Your task to perform on an android device: toggle location history Image 0: 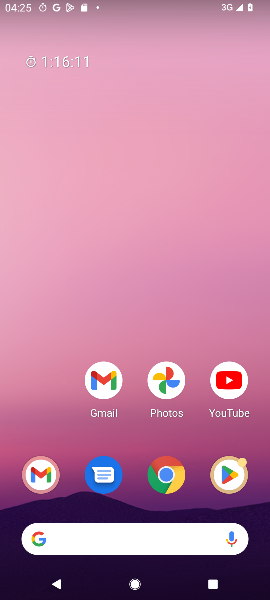
Step 0: press home button
Your task to perform on an android device: toggle location history Image 1: 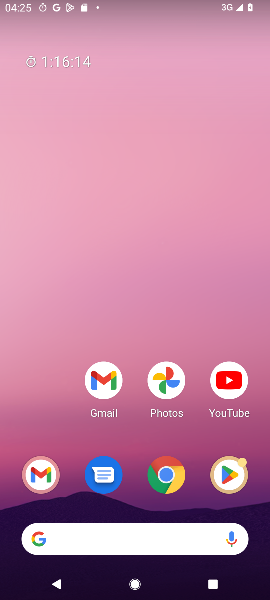
Step 1: drag from (51, 434) to (58, 183)
Your task to perform on an android device: toggle location history Image 2: 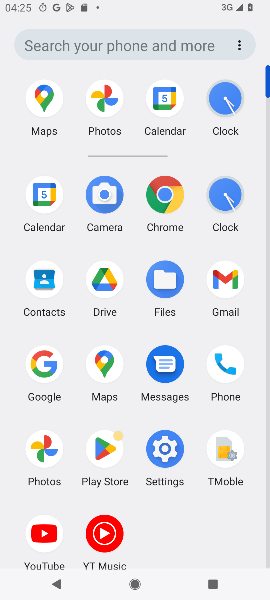
Step 2: click (165, 453)
Your task to perform on an android device: toggle location history Image 3: 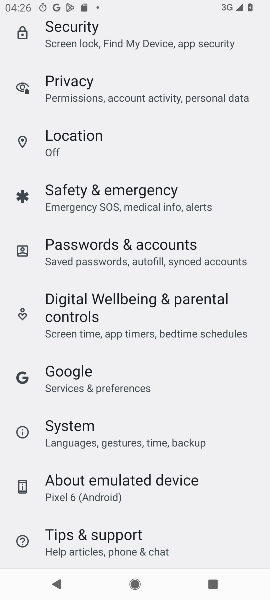
Step 3: drag from (241, 272) to (250, 352)
Your task to perform on an android device: toggle location history Image 4: 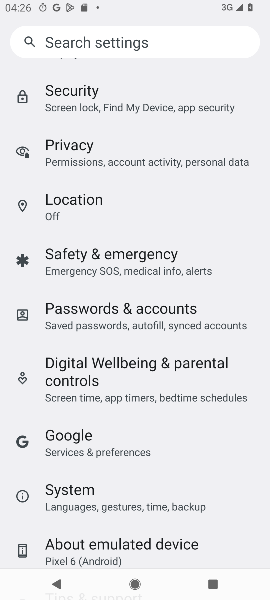
Step 4: drag from (245, 201) to (254, 293)
Your task to perform on an android device: toggle location history Image 5: 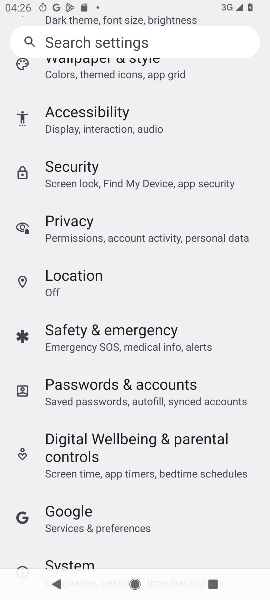
Step 5: drag from (247, 156) to (249, 242)
Your task to perform on an android device: toggle location history Image 6: 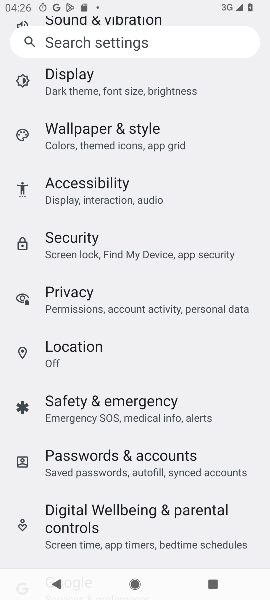
Step 6: drag from (238, 113) to (245, 247)
Your task to perform on an android device: toggle location history Image 7: 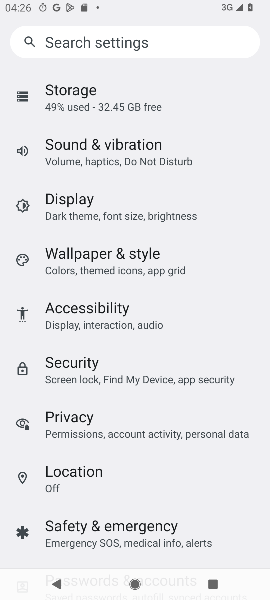
Step 7: drag from (233, 110) to (238, 367)
Your task to perform on an android device: toggle location history Image 8: 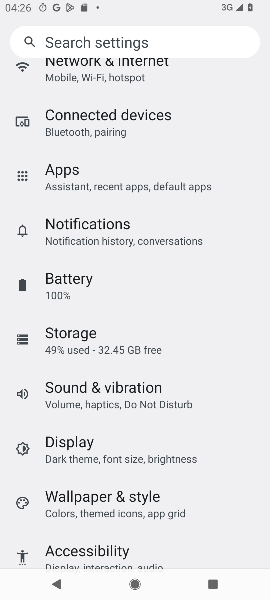
Step 8: drag from (229, 127) to (240, 323)
Your task to perform on an android device: toggle location history Image 9: 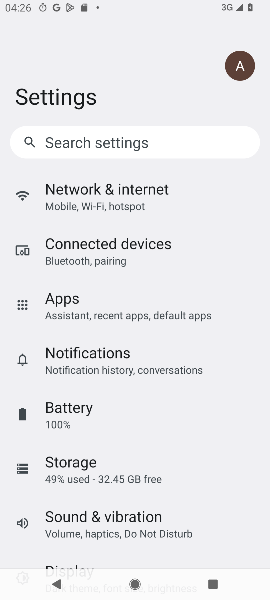
Step 9: drag from (227, 365) to (223, 267)
Your task to perform on an android device: toggle location history Image 10: 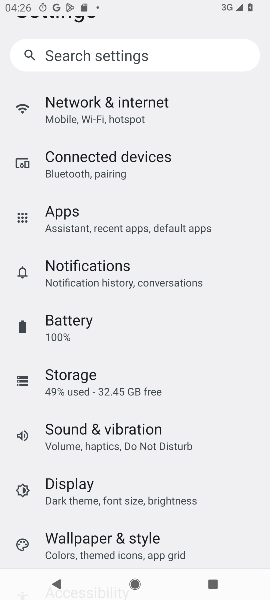
Step 10: drag from (204, 381) to (220, 285)
Your task to perform on an android device: toggle location history Image 11: 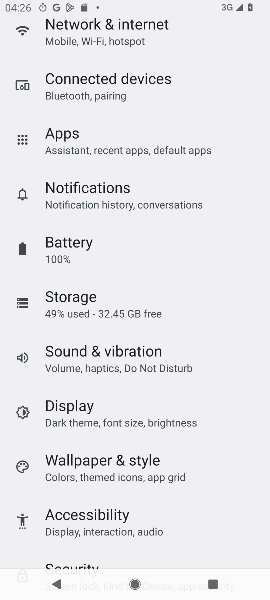
Step 11: drag from (217, 408) to (228, 330)
Your task to perform on an android device: toggle location history Image 12: 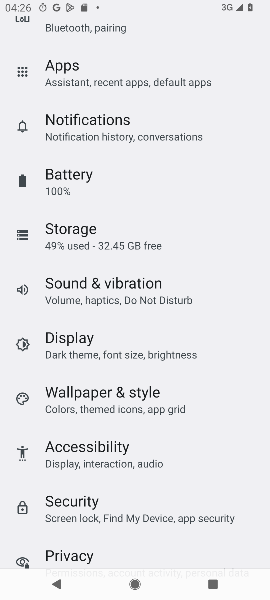
Step 12: drag from (219, 432) to (232, 330)
Your task to perform on an android device: toggle location history Image 13: 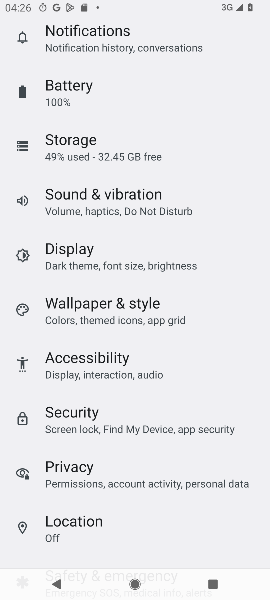
Step 13: drag from (235, 516) to (233, 368)
Your task to perform on an android device: toggle location history Image 14: 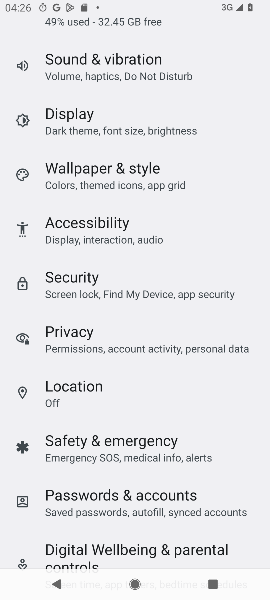
Step 14: click (211, 385)
Your task to perform on an android device: toggle location history Image 15: 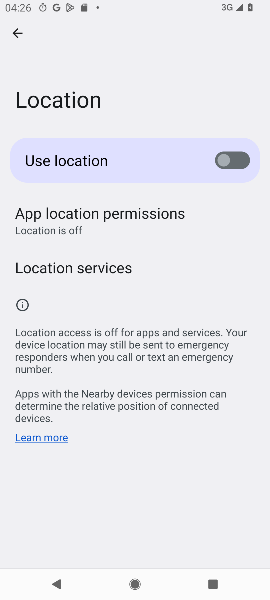
Step 15: click (120, 264)
Your task to perform on an android device: toggle location history Image 16: 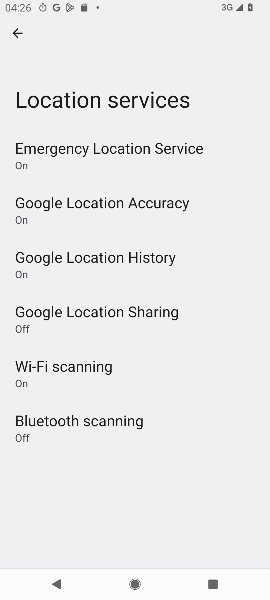
Step 16: click (99, 261)
Your task to perform on an android device: toggle location history Image 17: 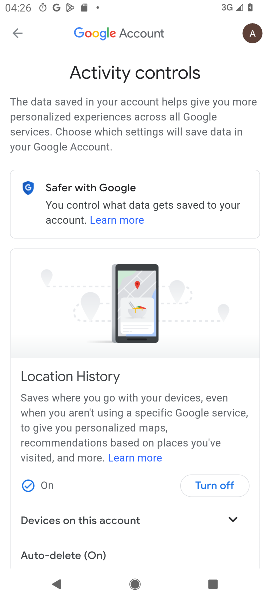
Step 17: click (206, 485)
Your task to perform on an android device: toggle location history Image 18: 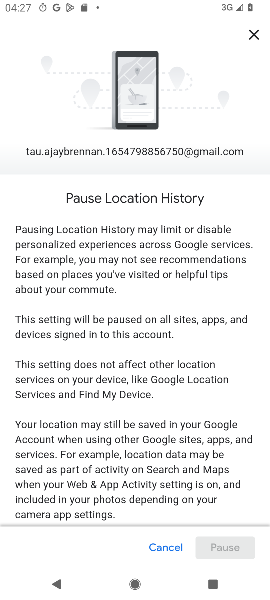
Step 18: drag from (168, 444) to (171, 280)
Your task to perform on an android device: toggle location history Image 19: 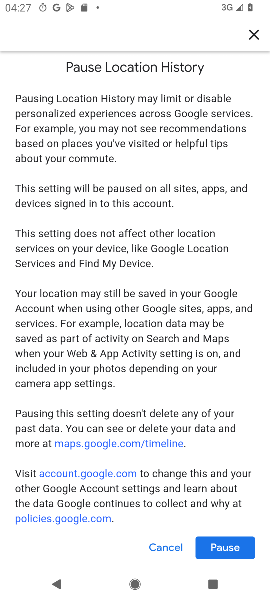
Step 19: click (225, 551)
Your task to perform on an android device: toggle location history Image 20: 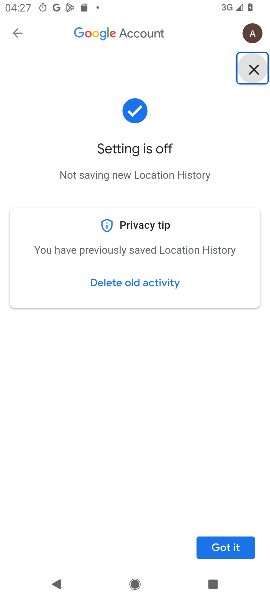
Step 20: task complete